Your task to perform on an android device: Open location settings Image 0: 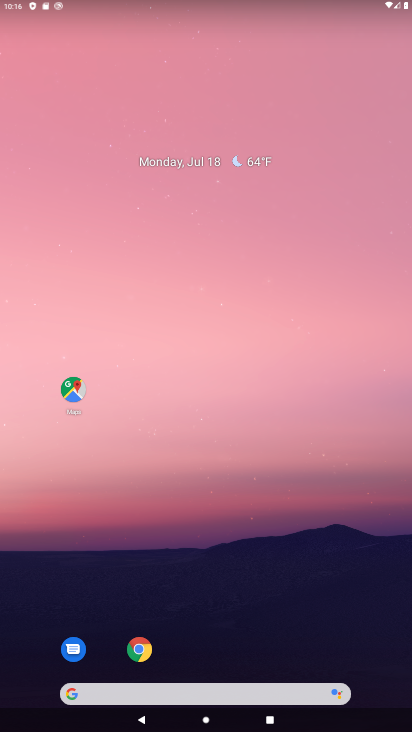
Step 0: drag from (238, 571) to (262, 121)
Your task to perform on an android device: Open location settings Image 1: 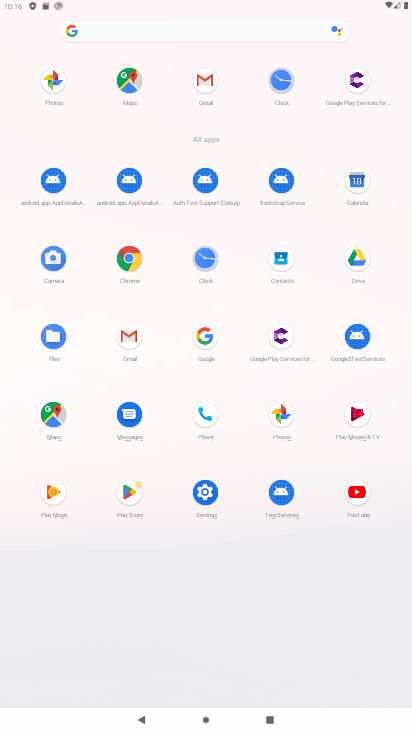
Step 1: click (205, 479)
Your task to perform on an android device: Open location settings Image 2: 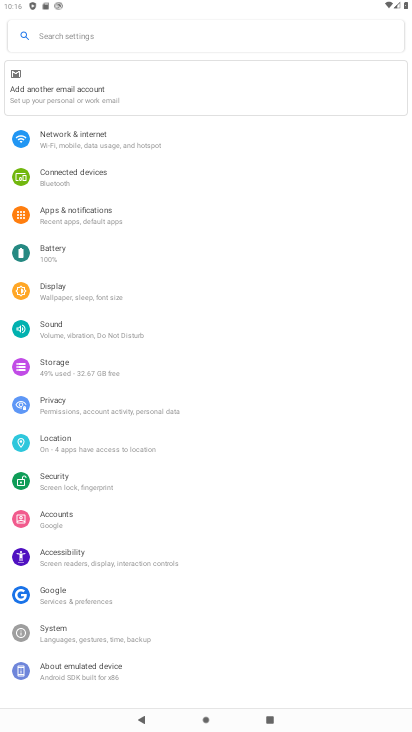
Step 2: click (99, 451)
Your task to perform on an android device: Open location settings Image 3: 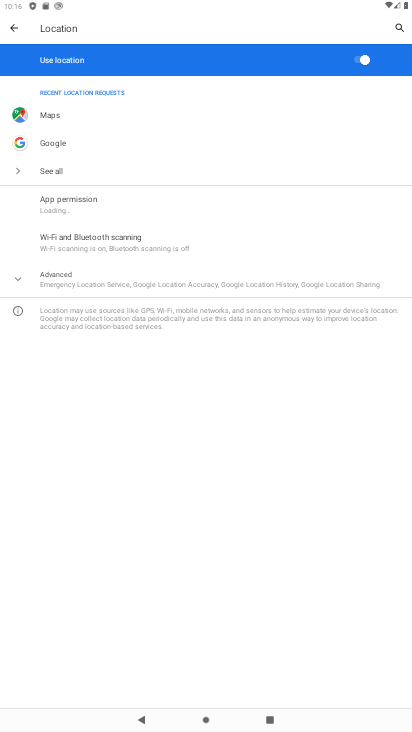
Step 3: task complete